Your task to perform on an android device: Check the news Image 0: 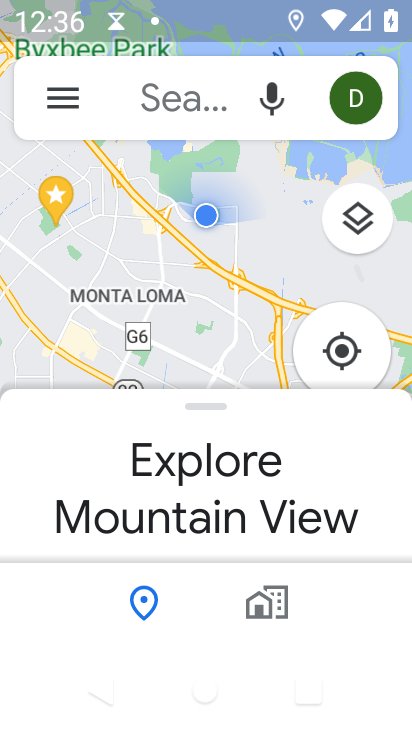
Step 0: press home button
Your task to perform on an android device: Check the news Image 1: 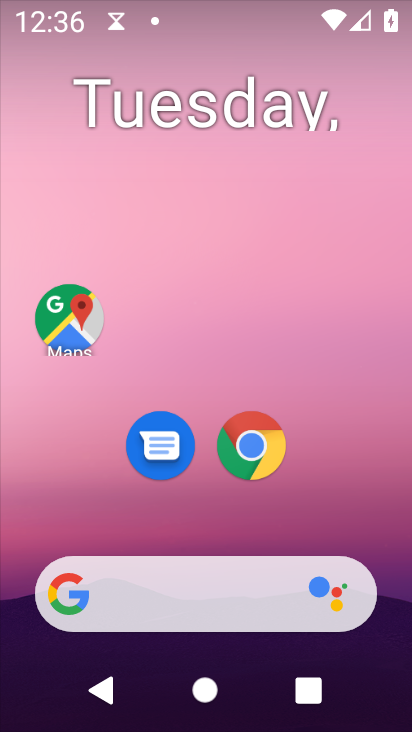
Step 1: drag from (297, 599) to (318, 4)
Your task to perform on an android device: Check the news Image 2: 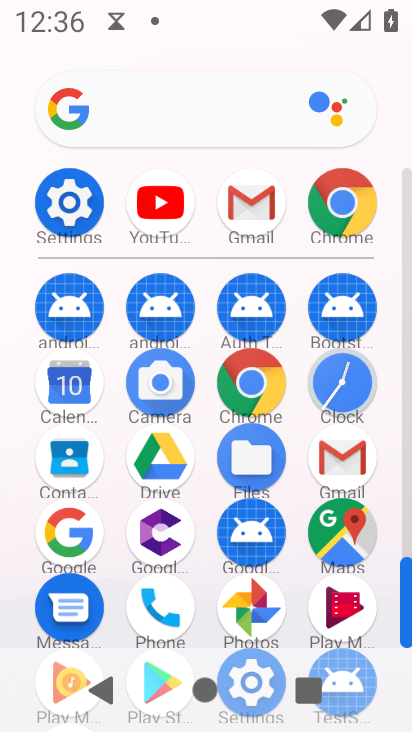
Step 2: click (261, 381)
Your task to perform on an android device: Check the news Image 3: 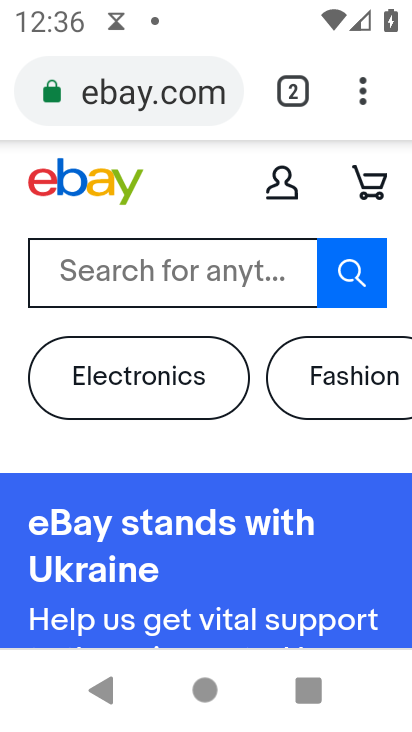
Step 3: click (216, 103)
Your task to perform on an android device: Check the news Image 4: 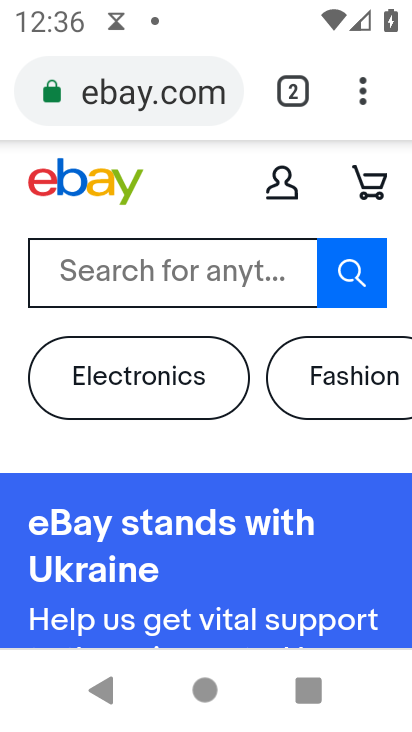
Step 4: click (216, 103)
Your task to perform on an android device: Check the news Image 5: 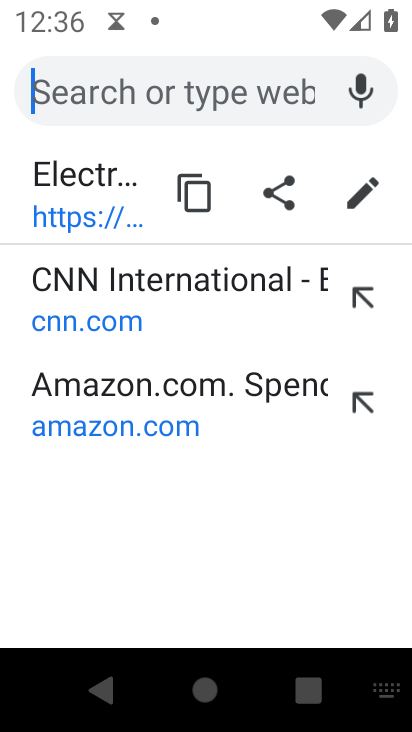
Step 5: type "check the news"
Your task to perform on an android device: Check the news Image 6: 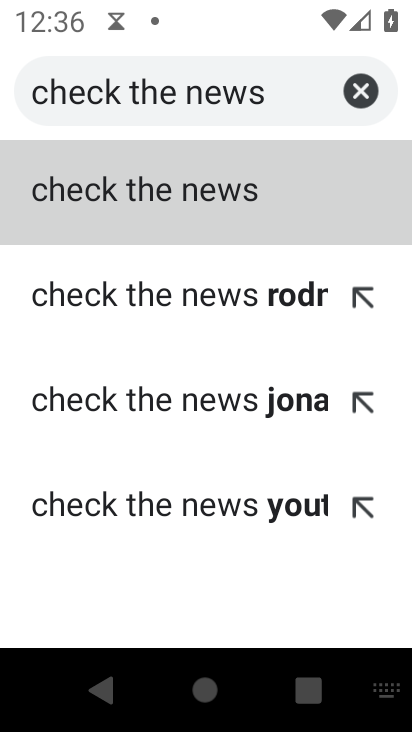
Step 6: click (318, 210)
Your task to perform on an android device: Check the news Image 7: 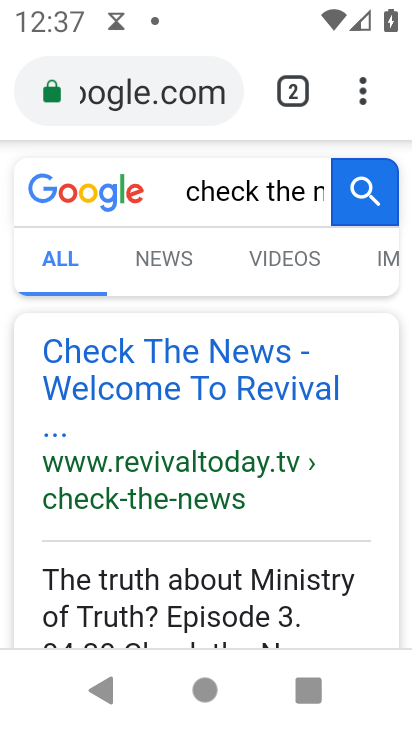
Step 7: task complete